Your task to perform on an android device: turn off location history Image 0: 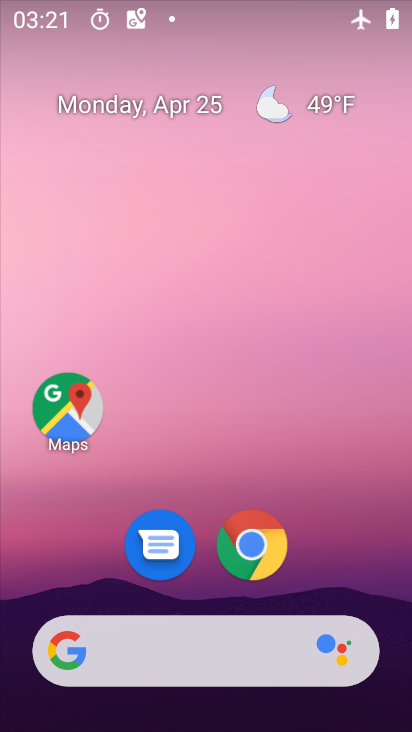
Step 0: drag from (243, 447) to (254, 40)
Your task to perform on an android device: turn off location history Image 1: 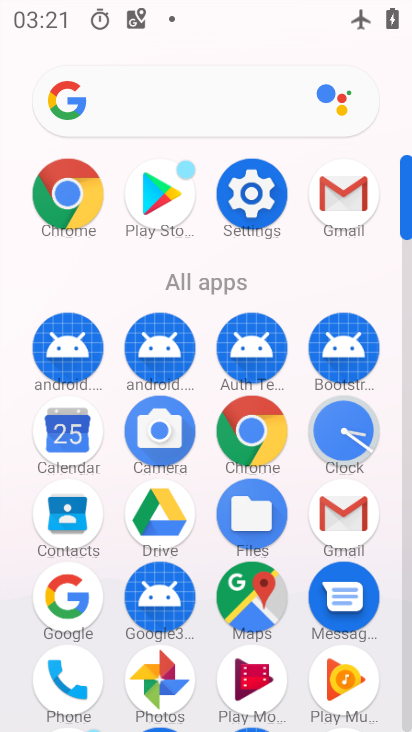
Step 1: click (251, 192)
Your task to perform on an android device: turn off location history Image 2: 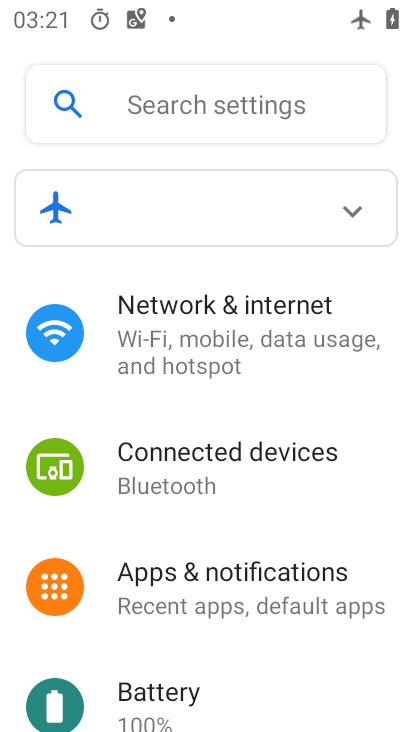
Step 2: drag from (231, 528) to (236, 438)
Your task to perform on an android device: turn off location history Image 3: 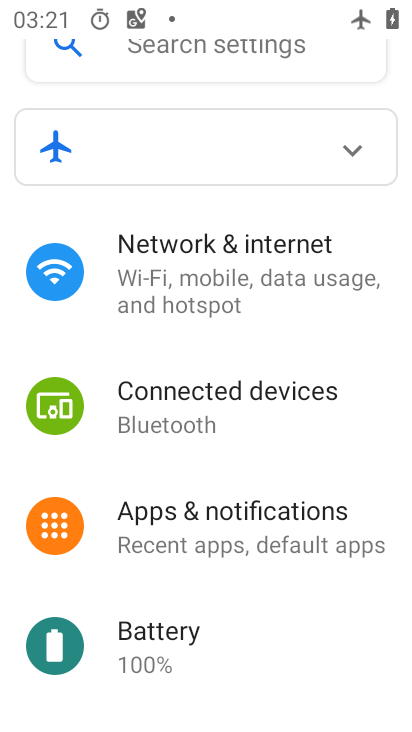
Step 3: drag from (229, 562) to (268, 445)
Your task to perform on an android device: turn off location history Image 4: 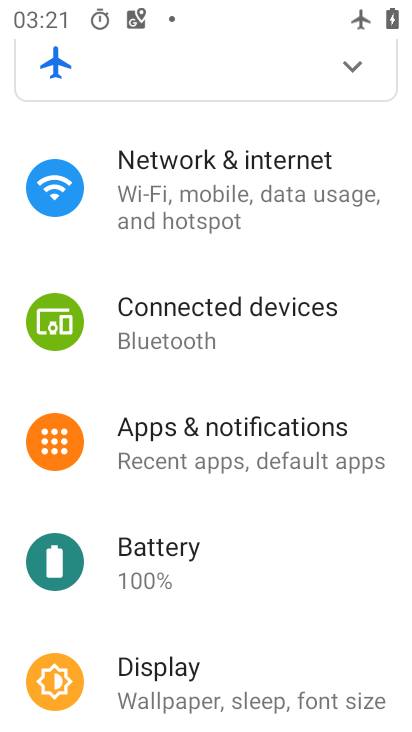
Step 4: drag from (241, 572) to (296, 456)
Your task to perform on an android device: turn off location history Image 5: 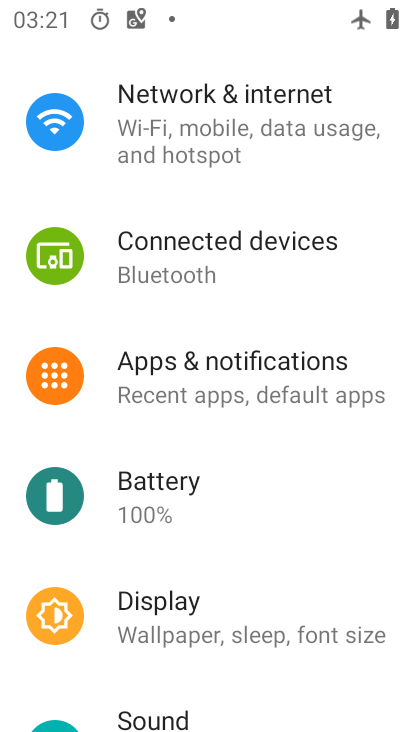
Step 5: drag from (237, 570) to (287, 425)
Your task to perform on an android device: turn off location history Image 6: 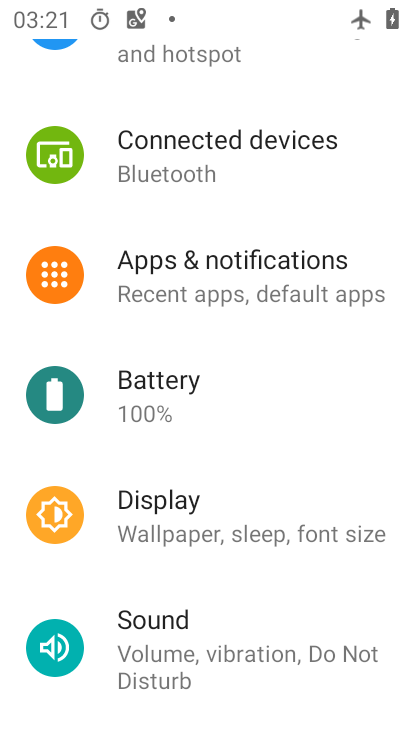
Step 6: drag from (221, 597) to (275, 422)
Your task to perform on an android device: turn off location history Image 7: 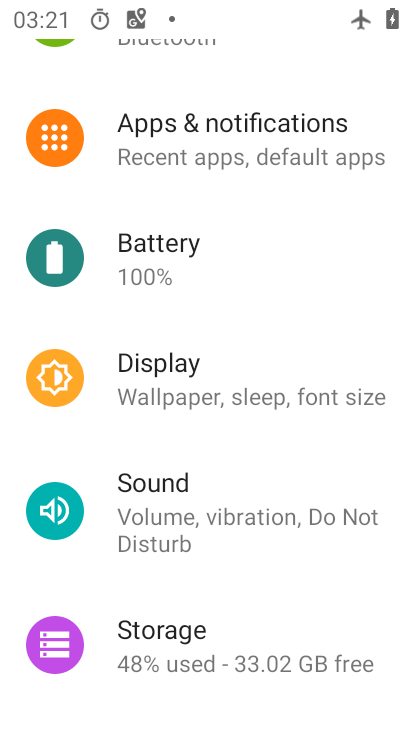
Step 7: drag from (230, 591) to (272, 410)
Your task to perform on an android device: turn off location history Image 8: 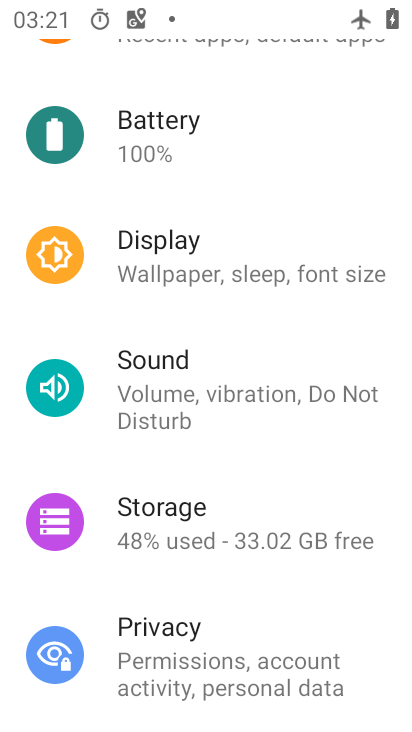
Step 8: drag from (192, 576) to (247, 395)
Your task to perform on an android device: turn off location history Image 9: 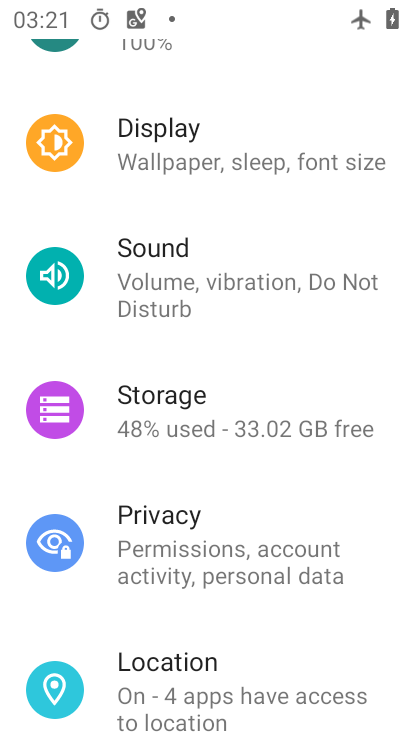
Step 9: drag from (162, 601) to (260, 445)
Your task to perform on an android device: turn off location history Image 10: 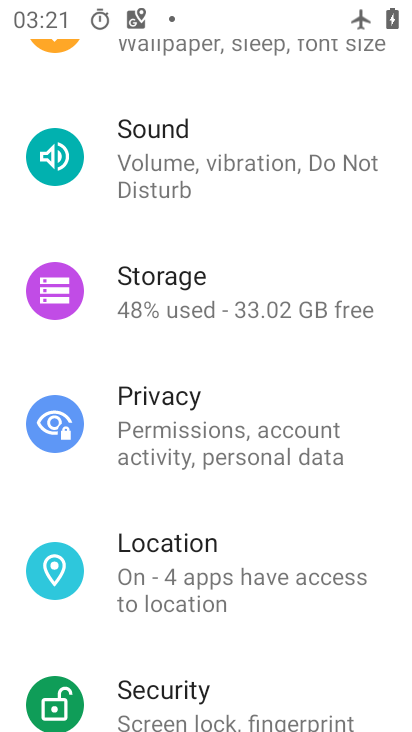
Step 10: click (179, 549)
Your task to perform on an android device: turn off location history Image 11: 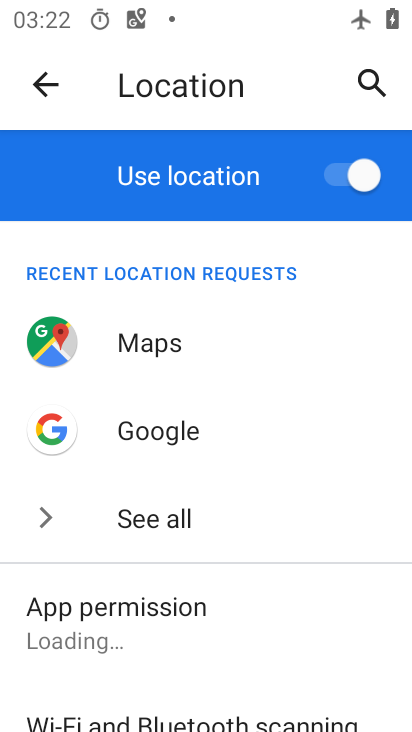
Step 11: drag from (249, 640) to (329, 440)
Your task to perform on an android device: turn off location history Image 12: 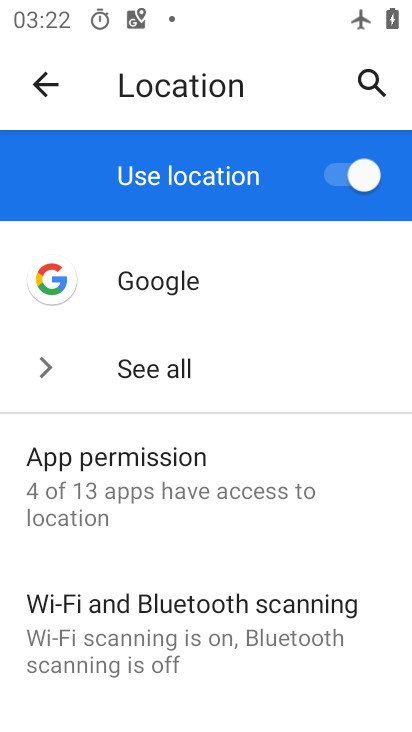
Step 12: drag from (228, 548) to (269, 379)
Your task to perform on an android device: turn off location history Image 13: 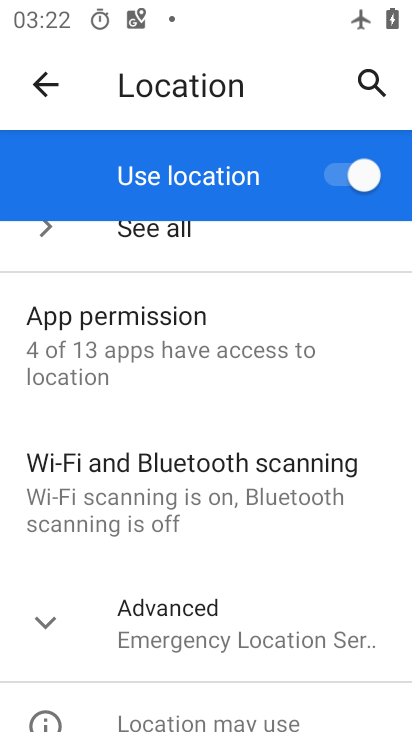
Step 13: drag from (224, 571) to (280, 439)
Your task to perform on an android device: turn off location history Image 14: 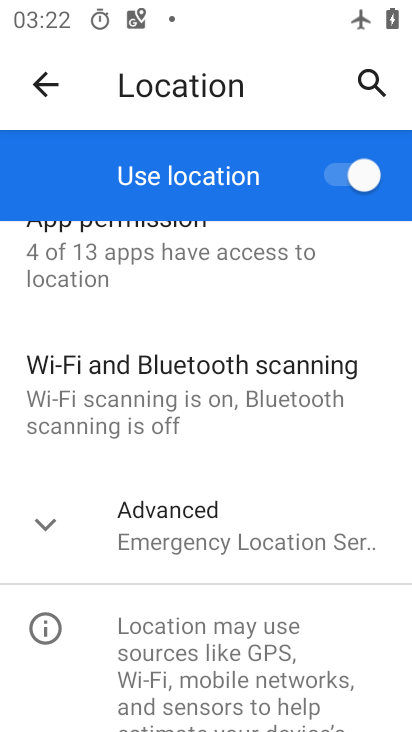
Step 14: click (233, 550)
Your task to perform on an android device: turn off location history Image 15: 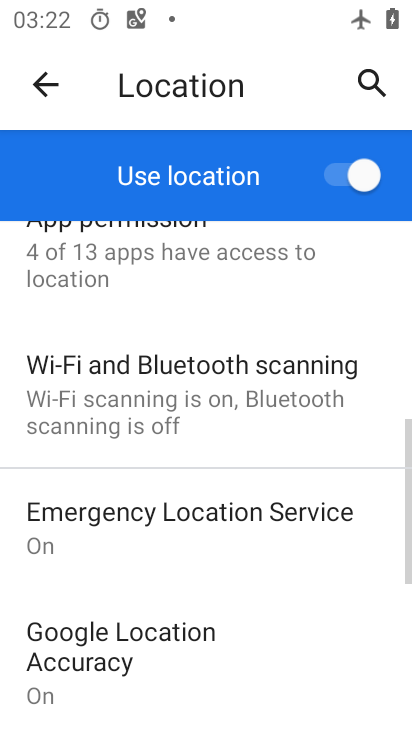
Step 15: task complete